Your task to perform on an android device: Go to sound settings Image 0: 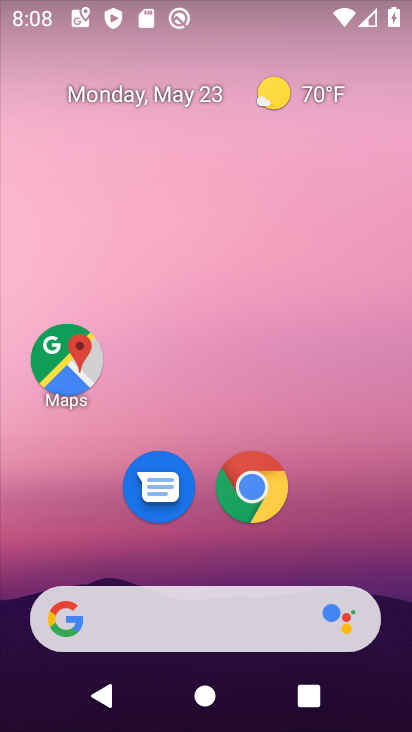
Step 0: drag from (195, 580) to (241, 120)
Your task to perform on an android device: Go to sound settings Image 1: 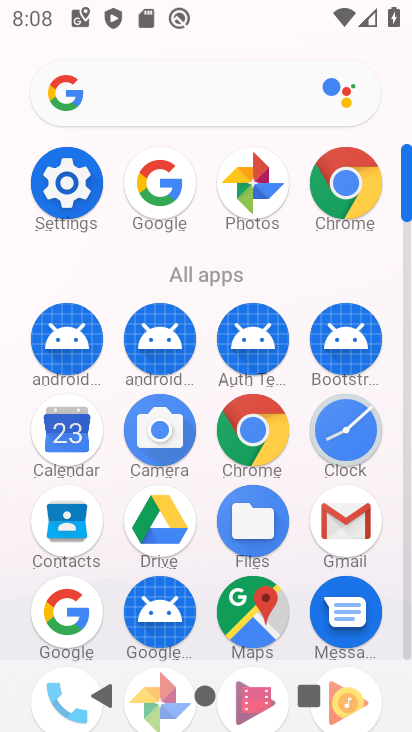
Step 1: click (67, 191)
Your task to perform on an android device: Go to sound settings Image 2: 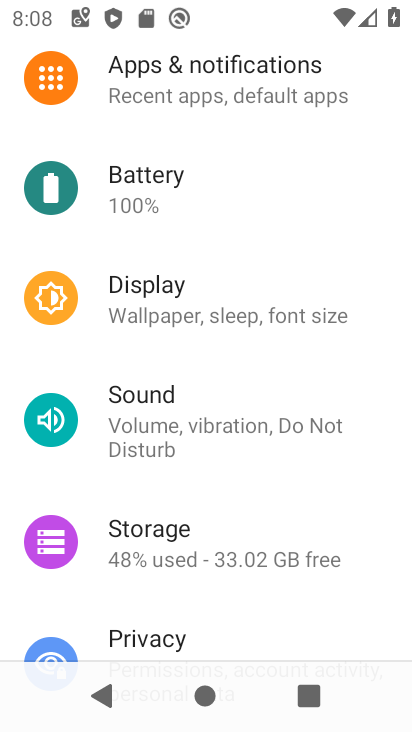
Step 2: click (171, 436)
Your task to perform on an android device: Go to sound settings Image 3: 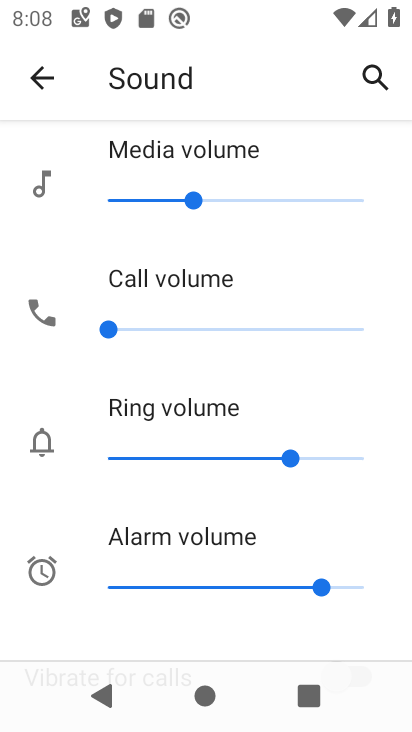
Step 3: drag from (212, 540) to (279, 89)
Your task to perform on an android device: Go to sound settings Image 4: 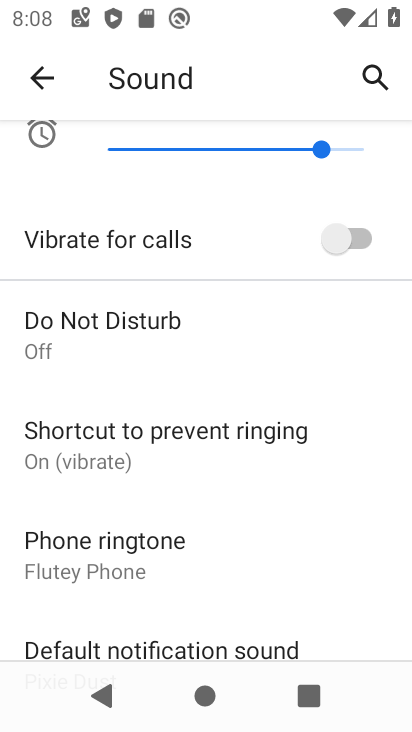
Step 4: drag from (279, 89) to (225, 439)
Your task to perform on an android device: Go to sound settings Image 5: 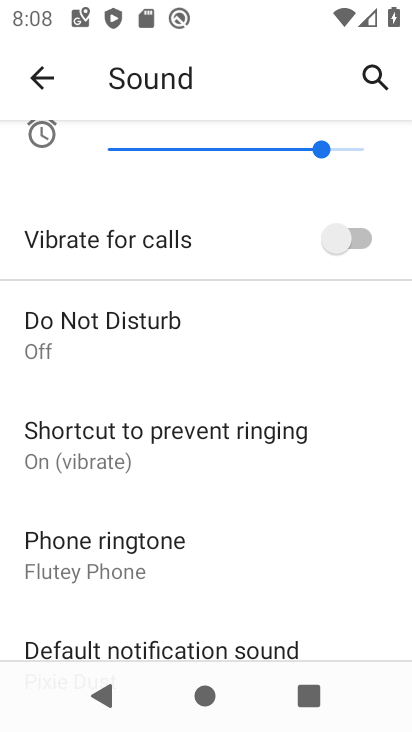
Step 5: drag from (225, 439) to (268, 112)
Your task to perform on an android device: Go to sound settings Image 6: 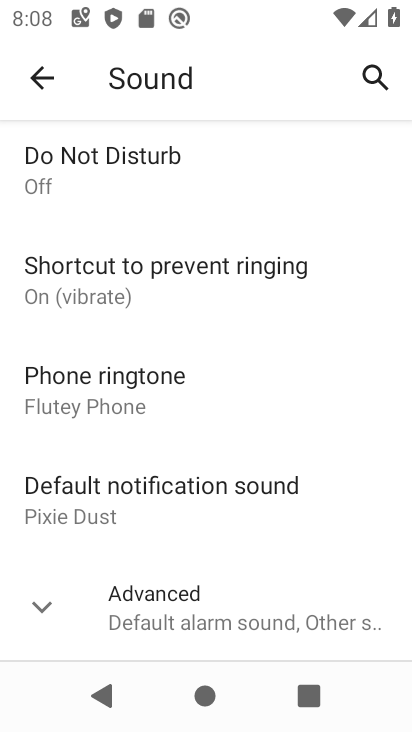
Step 6: click (259, 621)
Your task to perform on an android device: Go to sound settings Image 7: 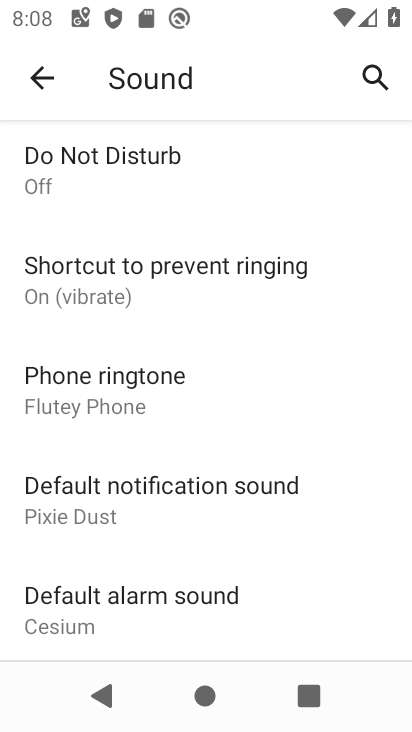
Step 7: task complete